Your task to perform on an android device: Go to privacy settings Image 0: 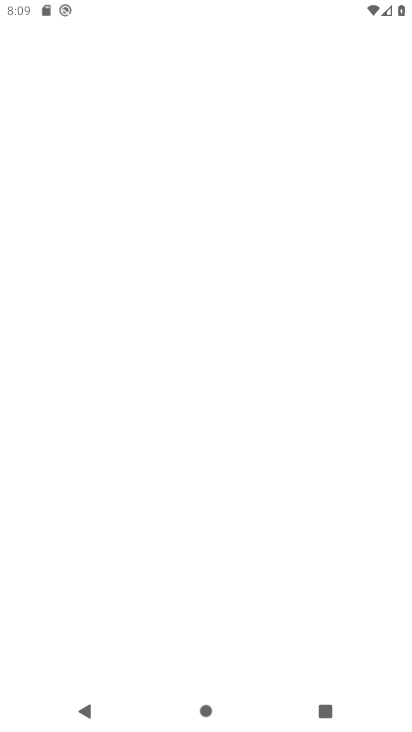
Step 0: press home button
Your task to perform on an android device: Go to privacy settings Image 1: 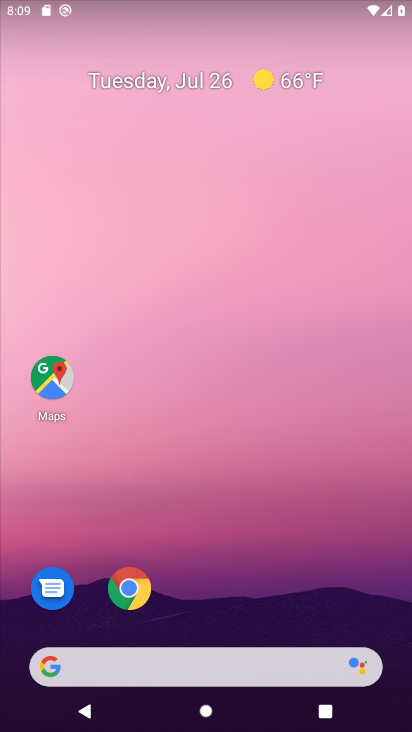
Step 1: drag from (227, 694) to (227, 110)
Your task to perform on an android device: Go to privacy settings Image 2: 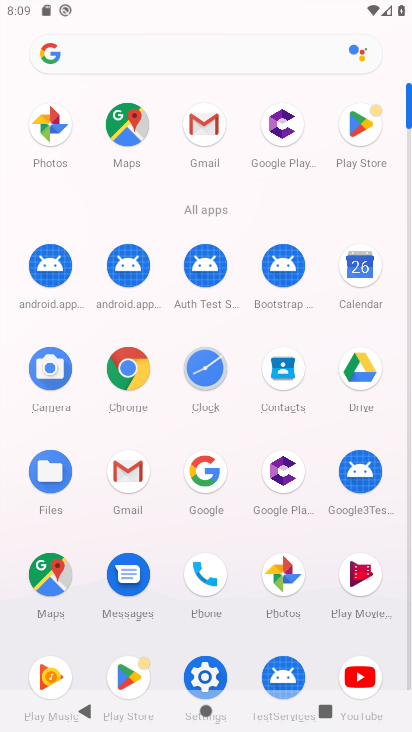
Step 2: click (204, 682)
Your task to perform on an android device: Go to privacy settings Image 3: 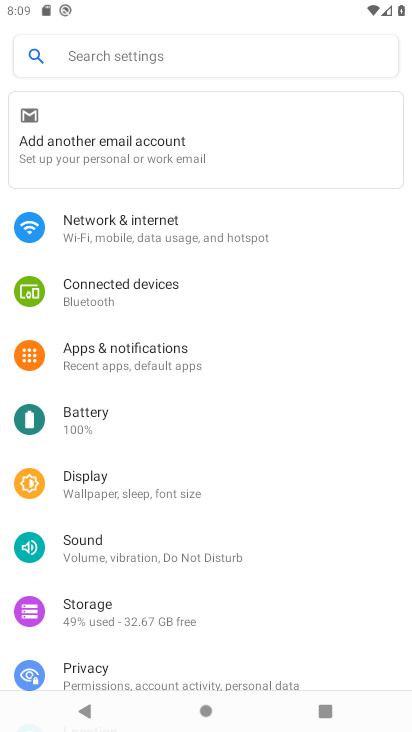
Step 3: click (85, 669)
Your task to perform on an android device: Go to privacy settings Image 4: 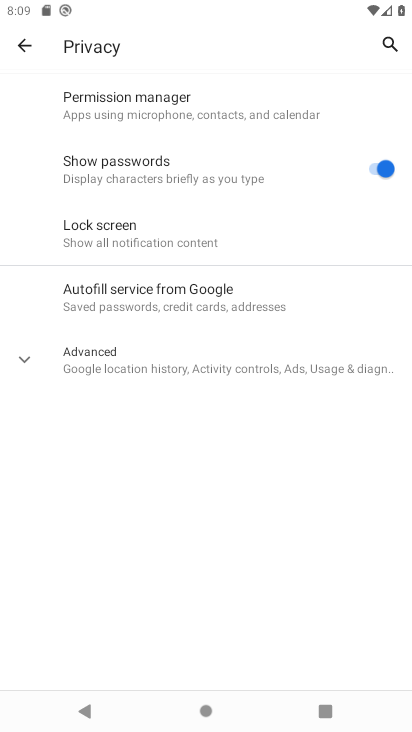
Step 4: task complete